Your task to perform on an android device: see tabs open on other devices in the chrome app Image 0: 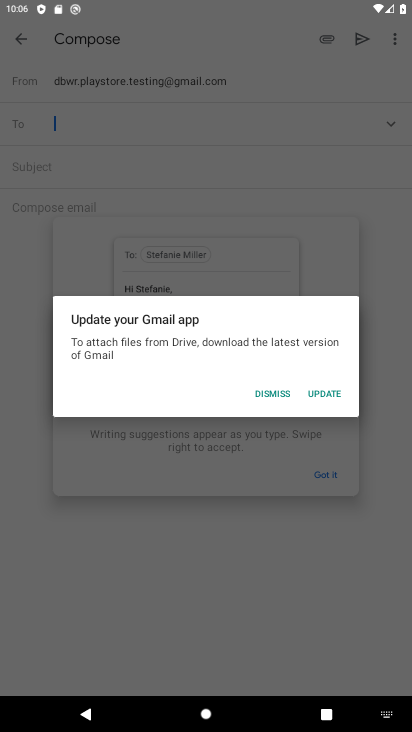
Step 0: press home button
Your task to perform on an android device: see tabs open on other devices in the chrome app Image 1: 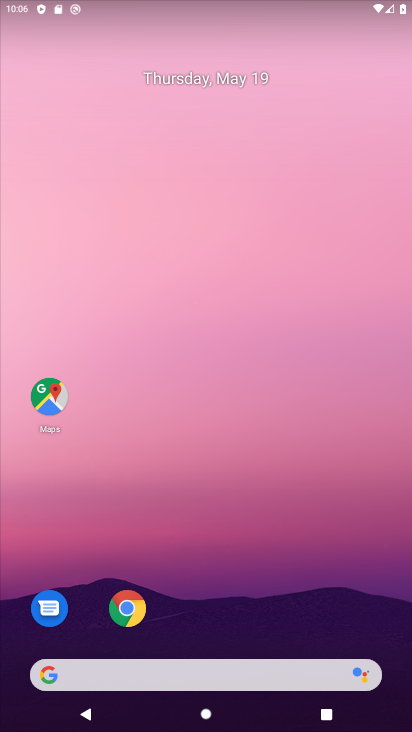
Step 1: click (127, 608)
Your task to perform on an android device: see tabs open on other devices in the chrome app Image 2: 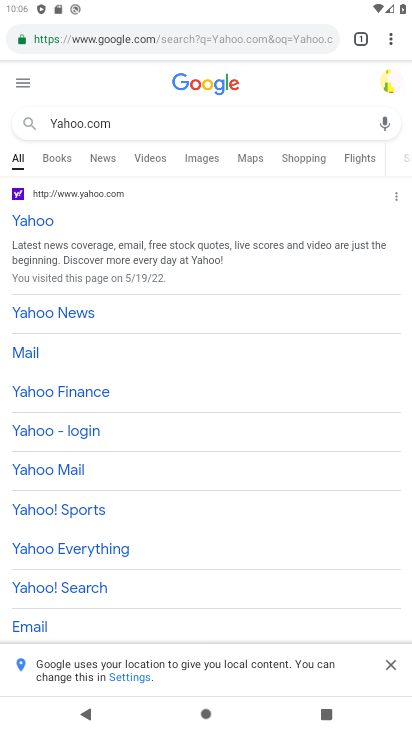
Step 2: click (390, 30)
Your task to perform on an android device: see tabs open on other devices in the chrome app Image 3: 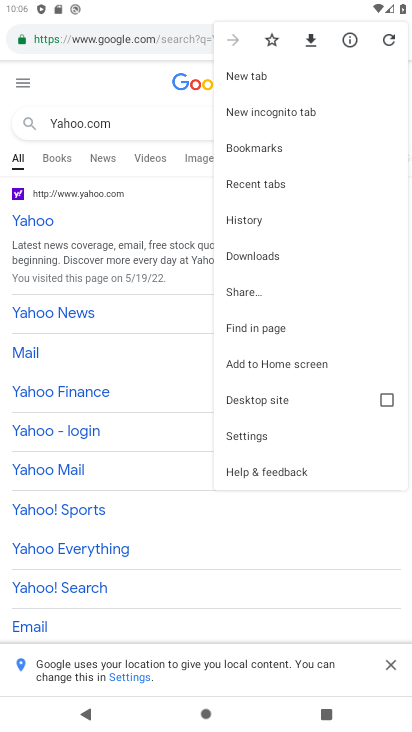
Step 3: click (249, 185)
Your task to perform on an android device: see tabs open on other devices in the chrome app Image 4: 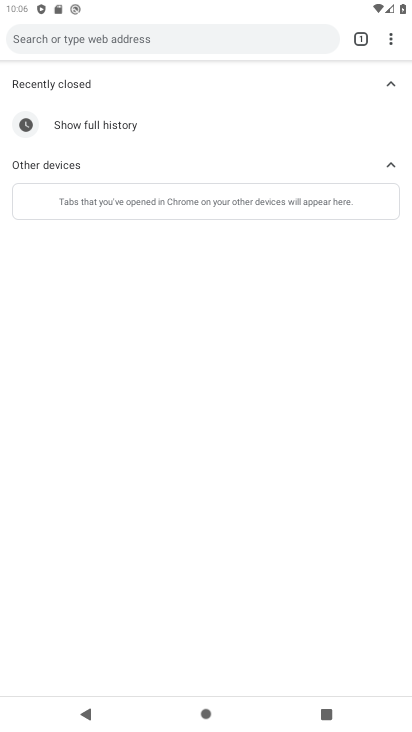
Step 4: task complete